Your task to perform on an android device: Find coffee shops on Maps Image 0: 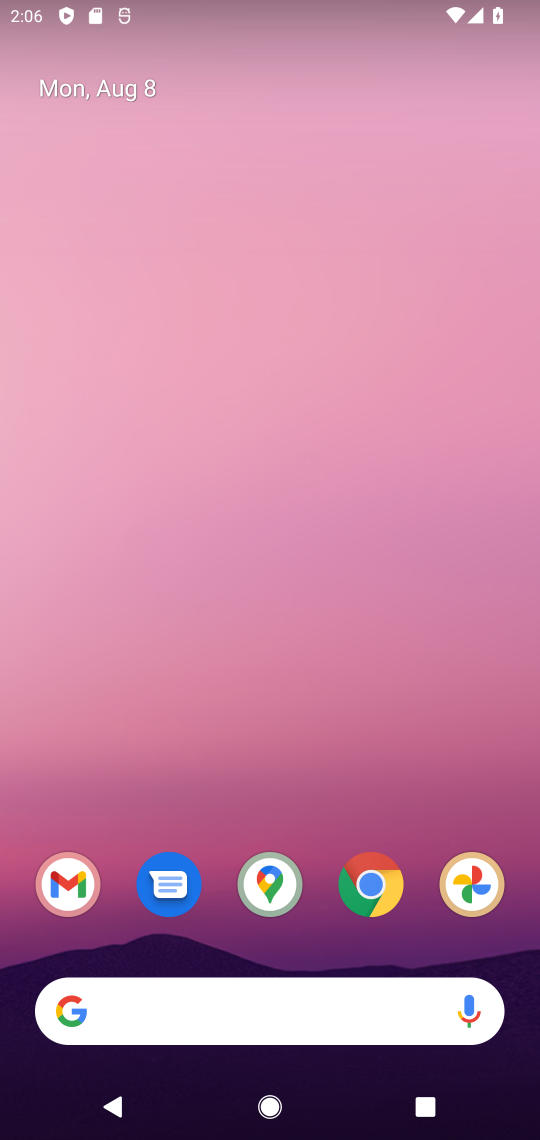
Step 0: press home button
Your task to perform on an android device: Find coffee shops on Maps Image 1: 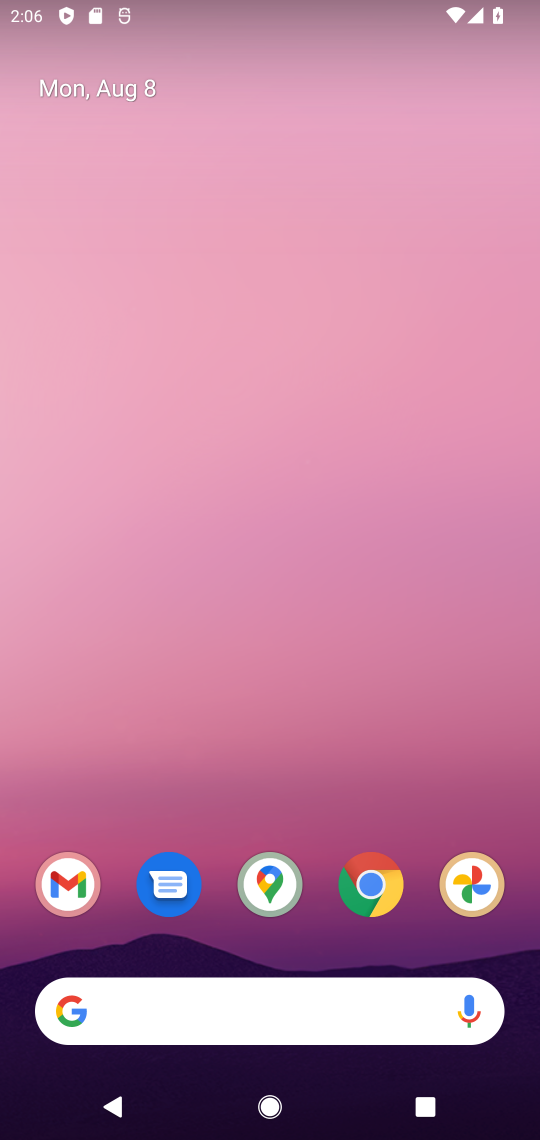
Step 1: click (272, 885)
Your task to perform on an android device: Find coffee shops on Maps Image 2: 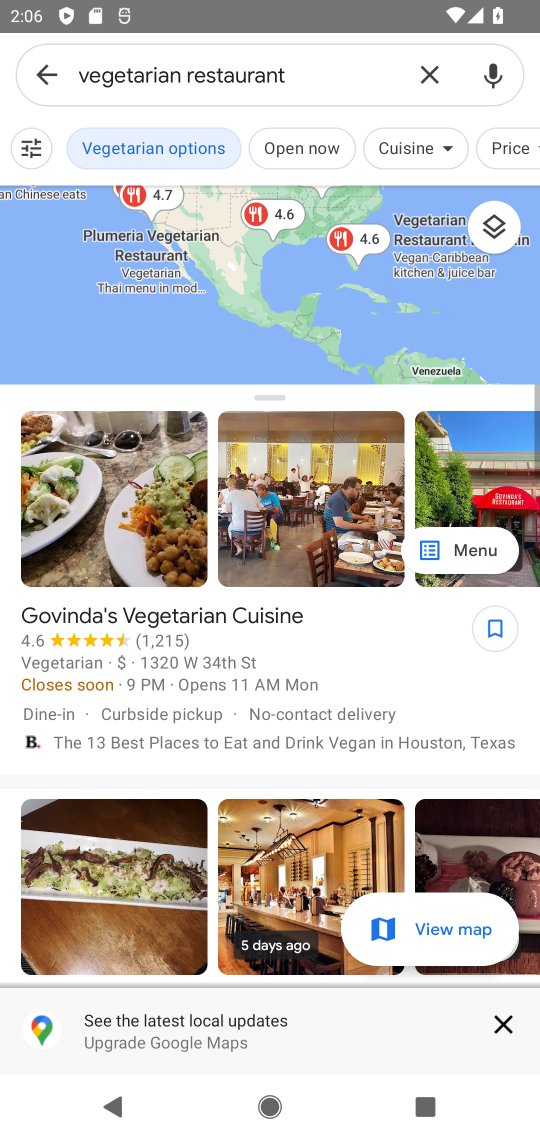
Step 2: click (429, 70)
Your task to perform on an android device: Find coffee shops on Maps Image 3: 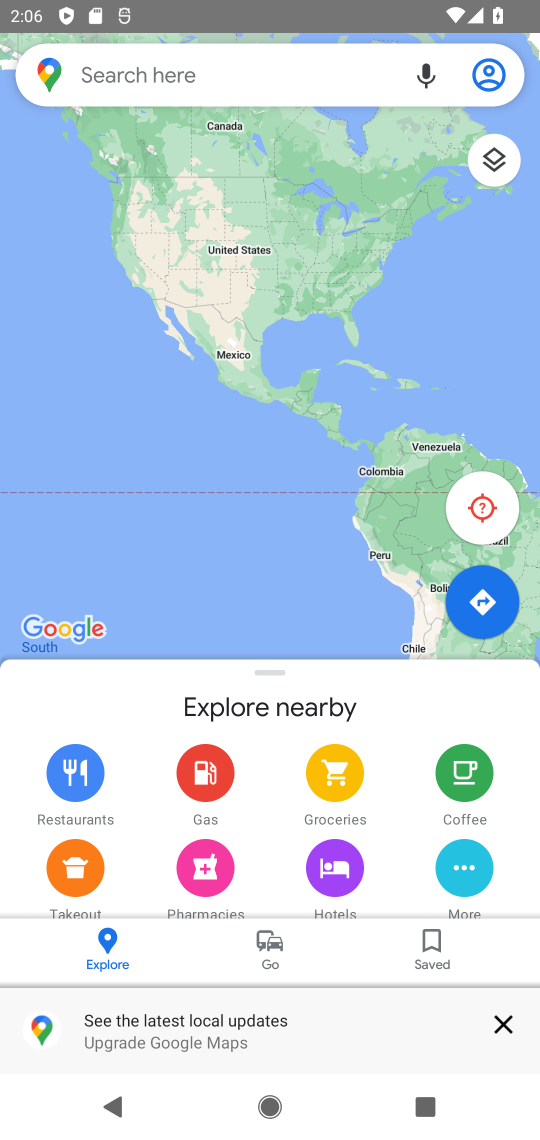
Step 3: click (246, 66)
Your task to perform on an android device: Find coffee shops on Maps Image 4: 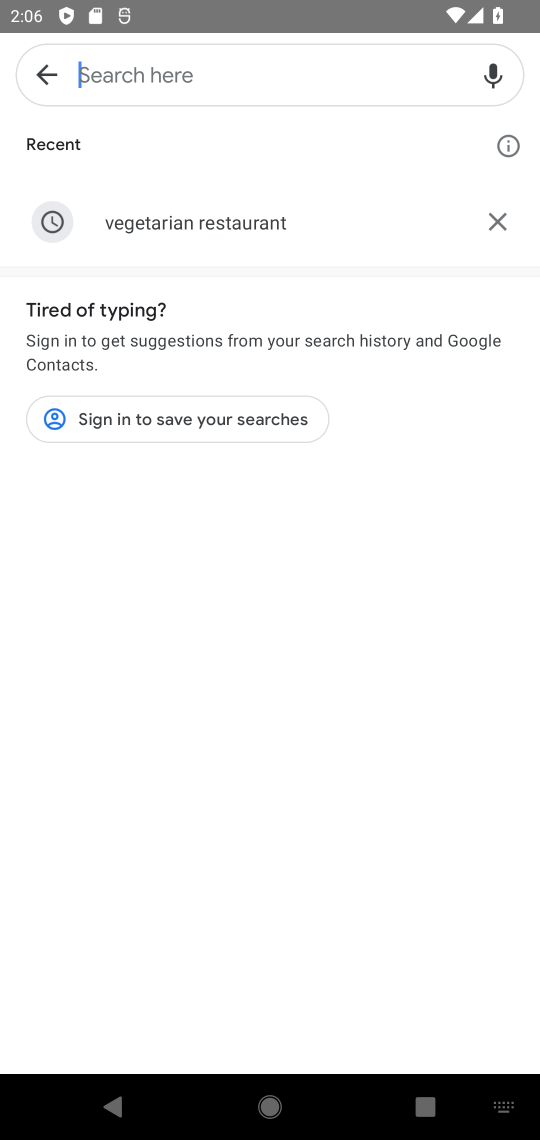
Step 4: type "coffee shops"
Your task to perform on an android device: Find coffee shops on Maps Image 5: 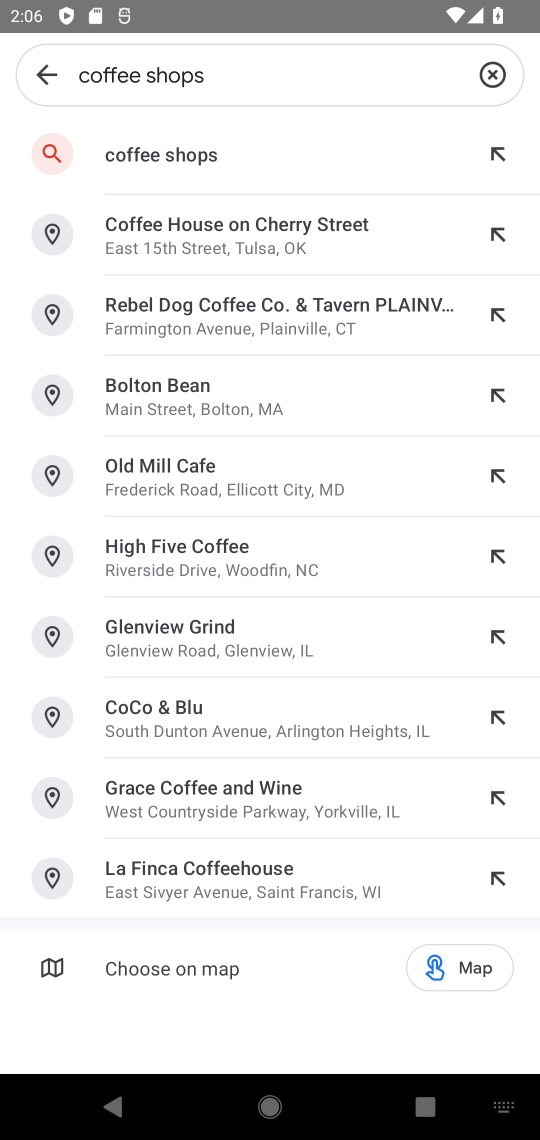
Step 5: click (137, 148)
Your task to perform on an android device: Find coffee shops on Maps Image 6: 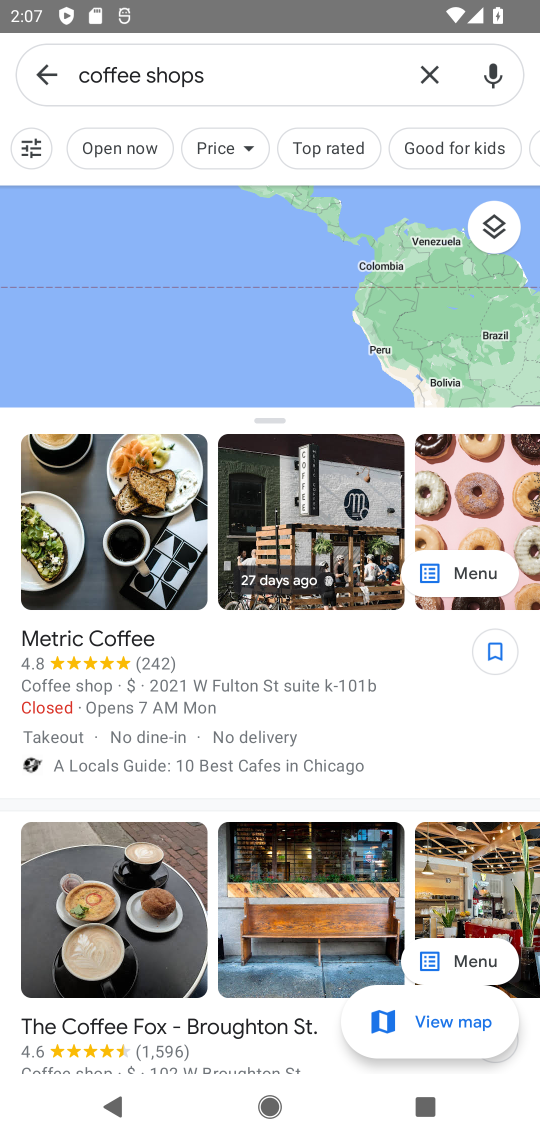
Step 6: task complete